Your task to perform on an android device: delete the emails in spam in the gmail app Image 0: 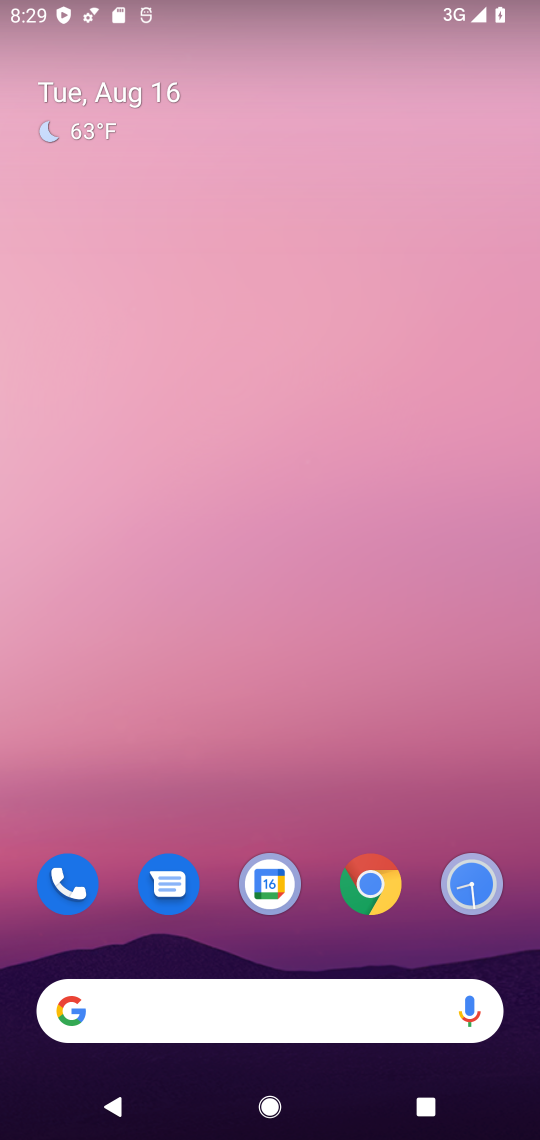
Step 0: drag from (426, 939) to (399, 87)
Your task to perform on an android device: delete the emails in spam in the gmail app Image 1: 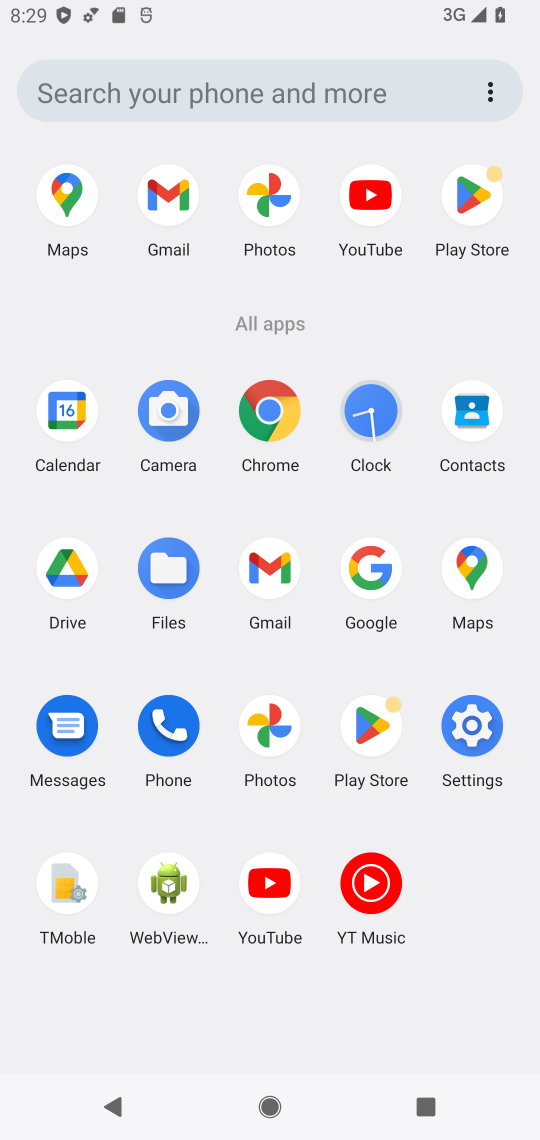
Step 1: click (268, 569)
Your task to perform on an android device: delete the emails in spam in the gmail app Image 2: 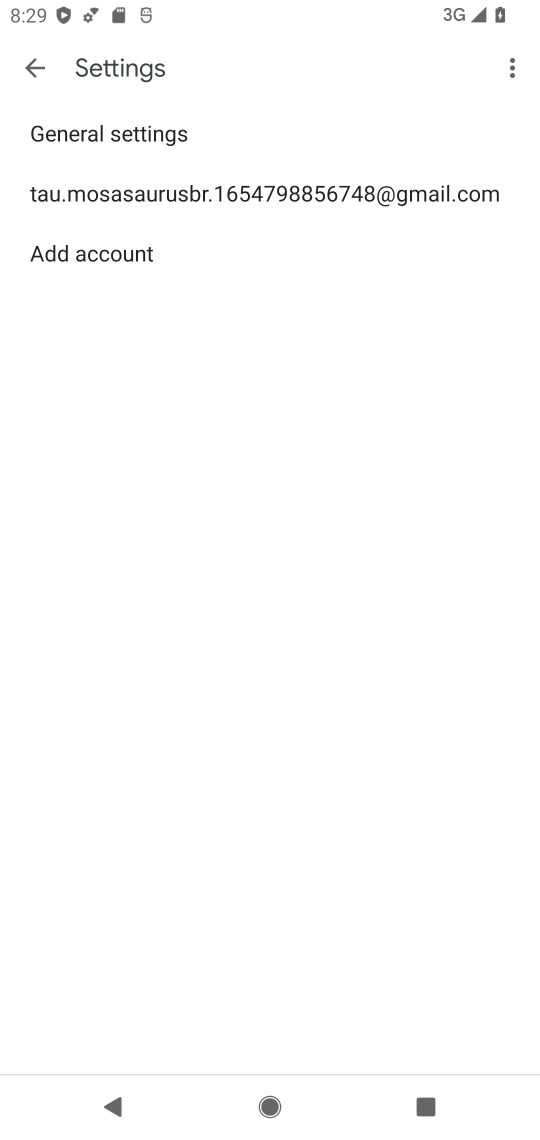
Step 2: press back button
Your task to perform on an android device: delete the emails in spam in the gmail app Image 3: 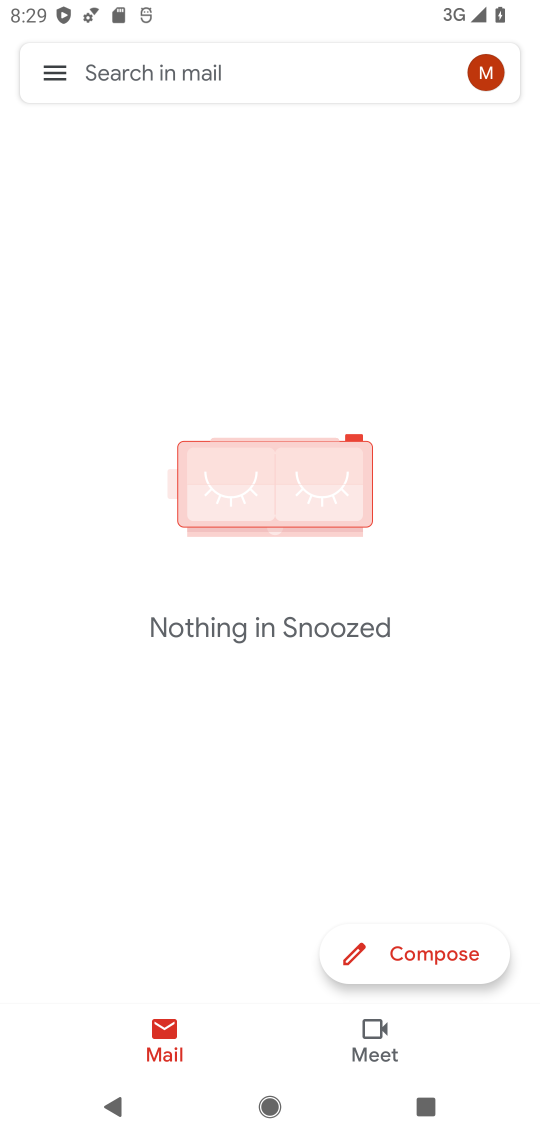
Step 3: click (47, 73)
Your task to perform on an android device: delete the emails in spam in the gmail app Image 4: 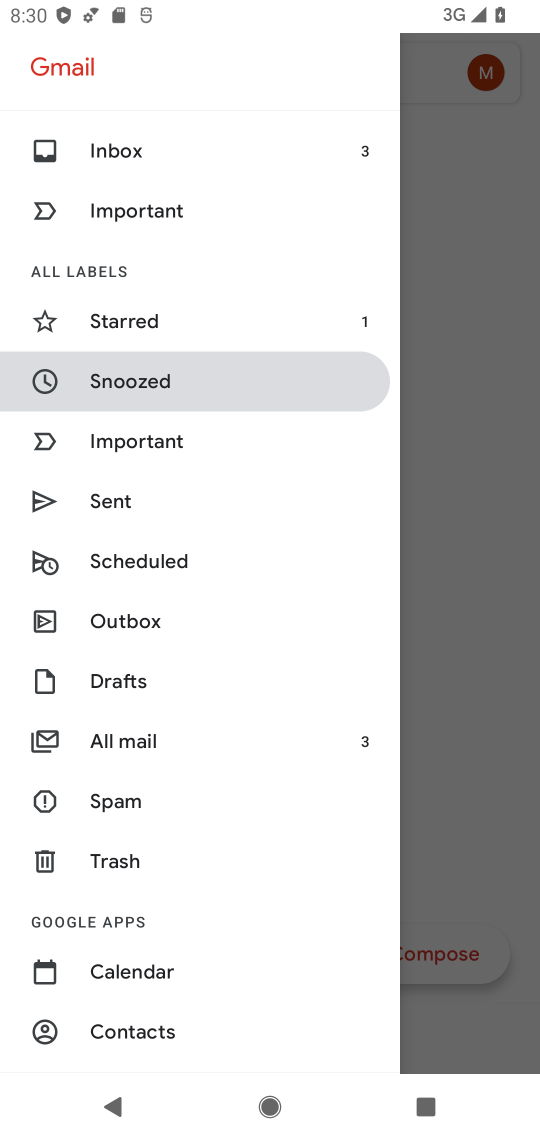
Step 4: drag from (215, 941) to (219, 573)
Your task to perform on an android device: delete the emails in spam in the gmail app Image 5: 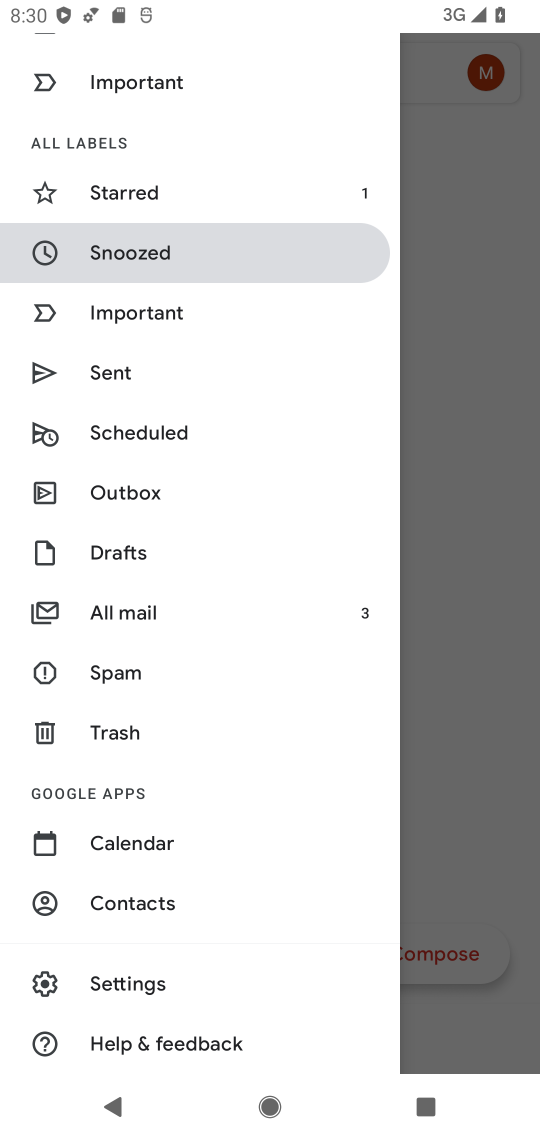
Step 5: click (117, 665)
Your task to perform on an android device: delete the emails in spam in the gmail app Image 6: 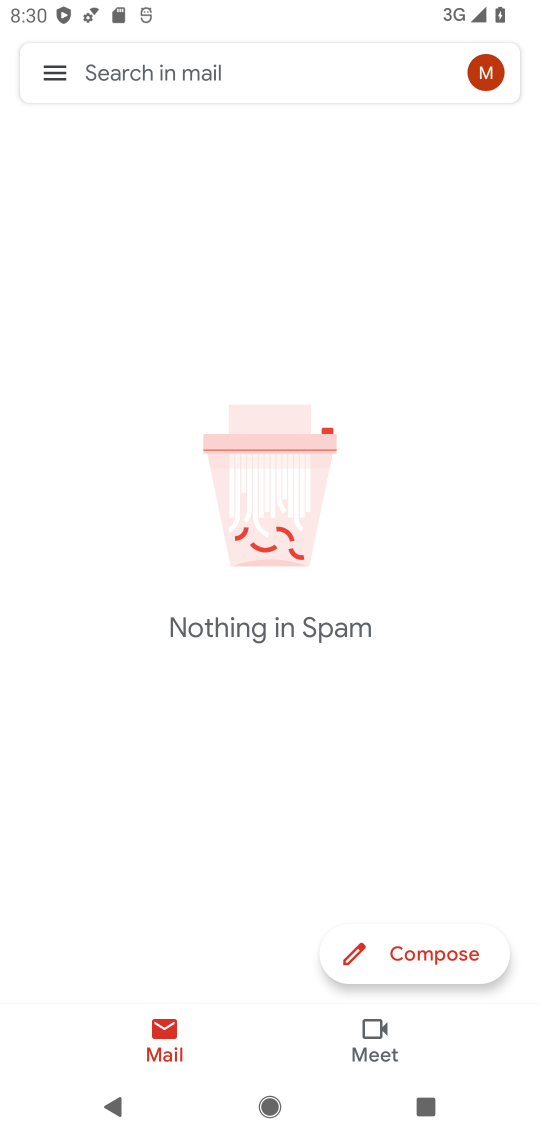
Step 6: task complete